Your task to perform on an android device: Empty the shopping cart on target.com. Image 0: 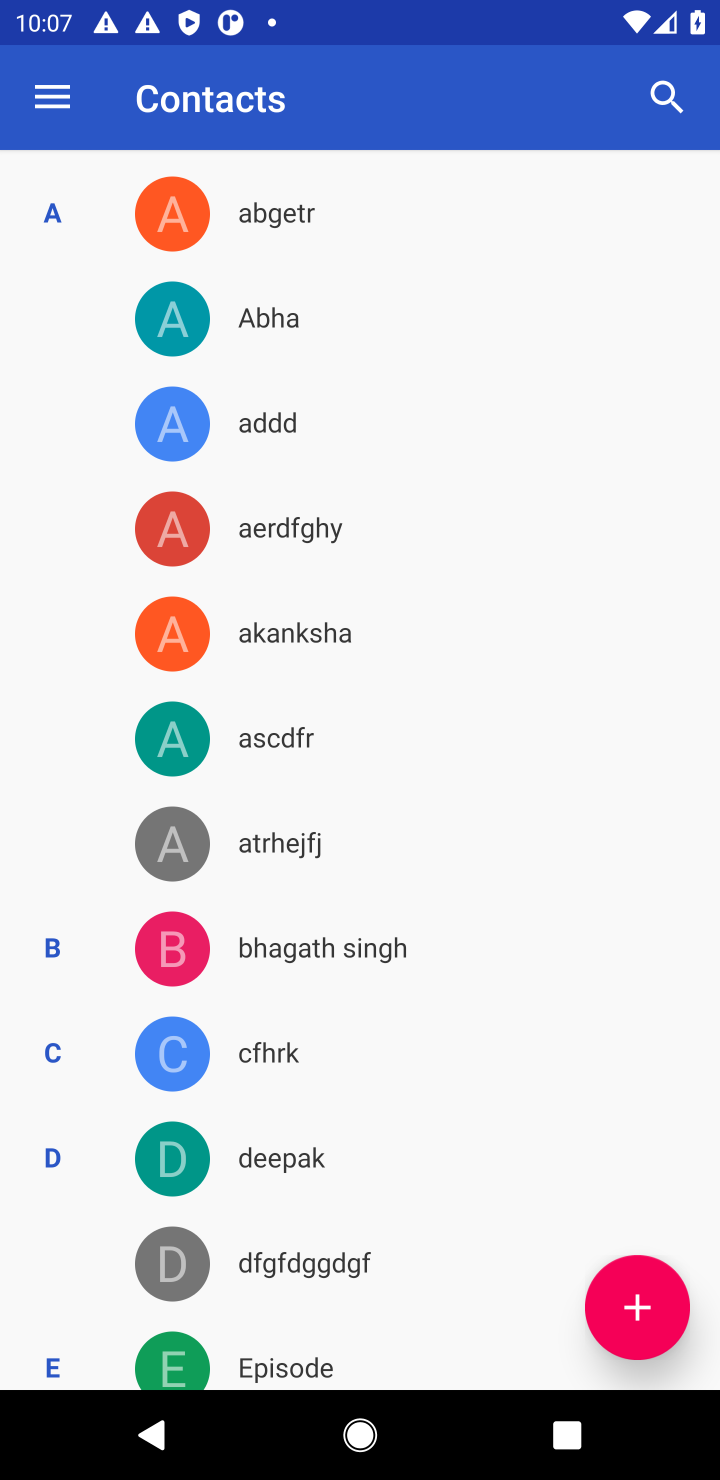
Step 0: press home button
Your task to perform on an android device: Empty the shopping cart on target.com. Image 1: 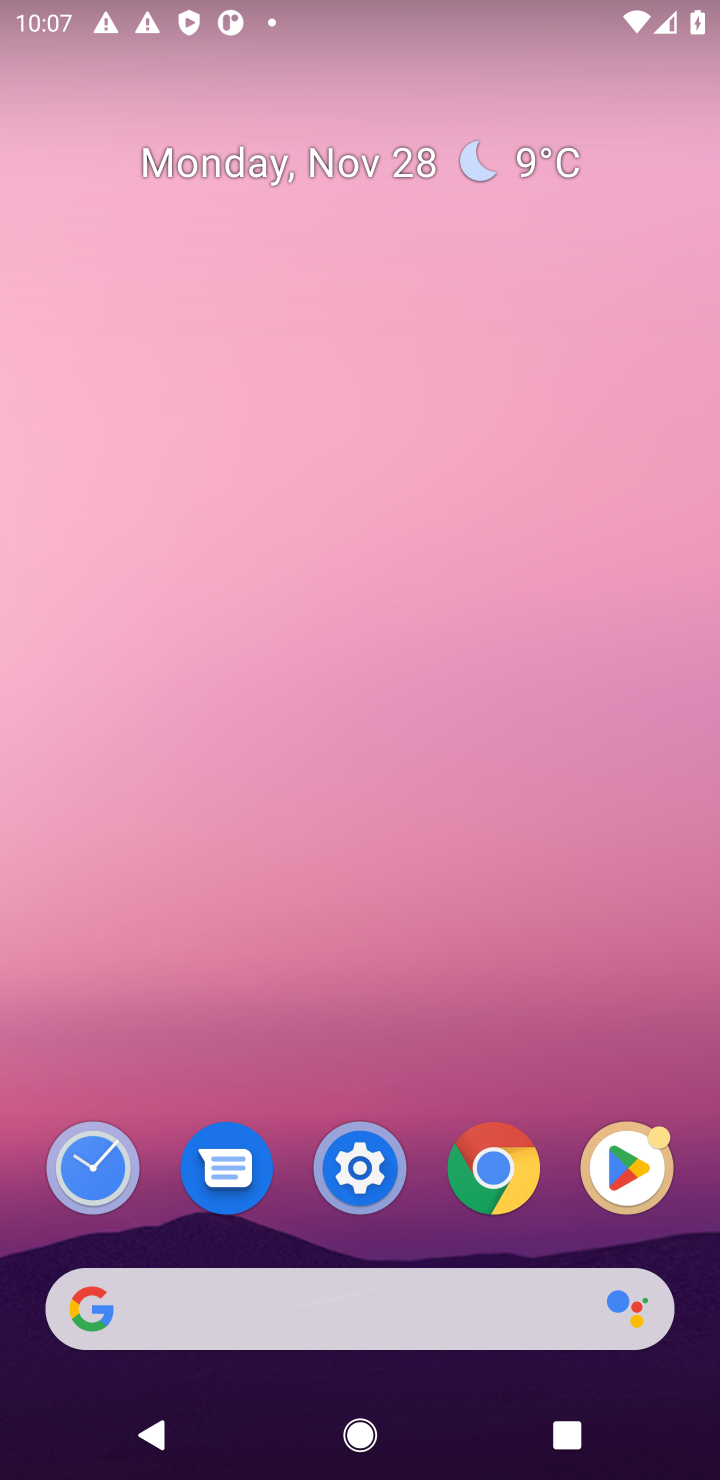
Step 1: click (346, 1302)
Your task to perform on an android device: Empty the shopping cart on target.com. Image 2: 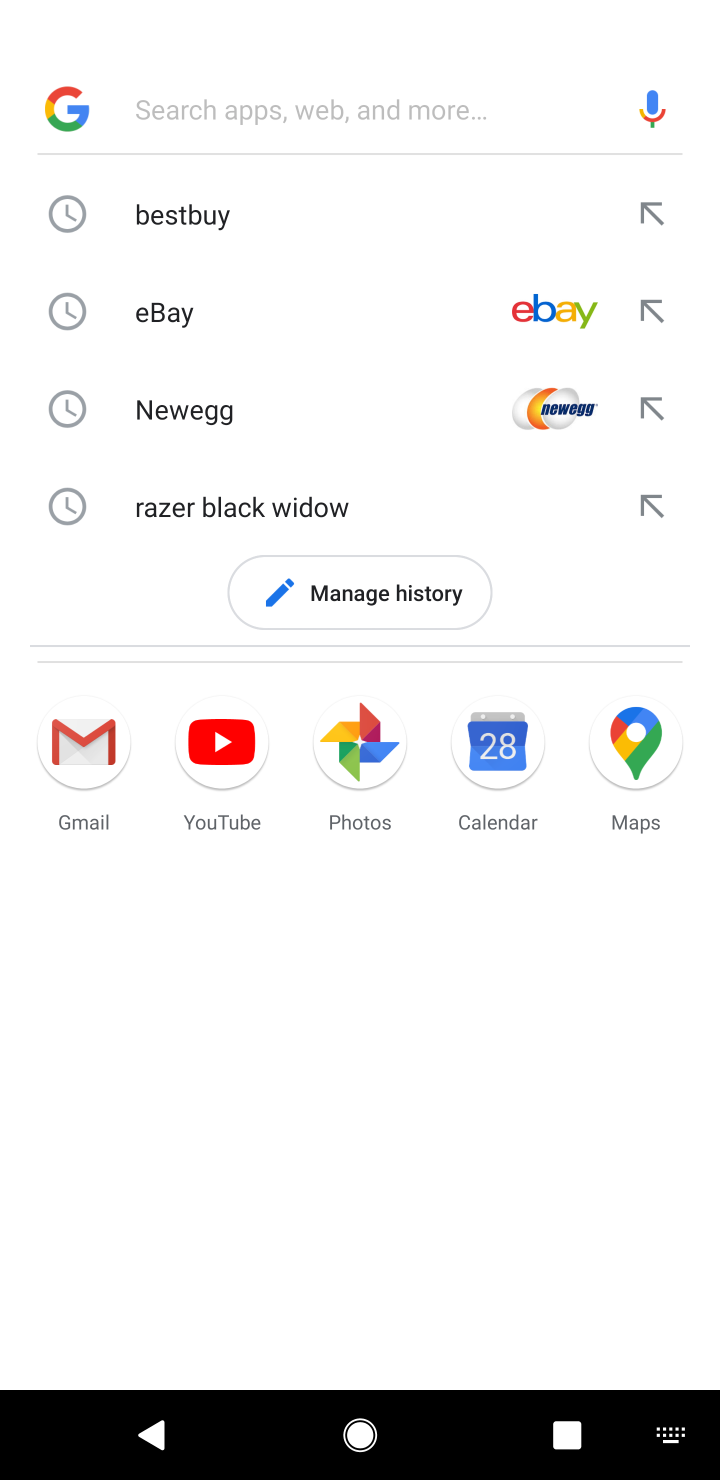
Step 2: type "target.com"
Your task to perform on an android device: Empty the shopping cart on target.com. Image 3: 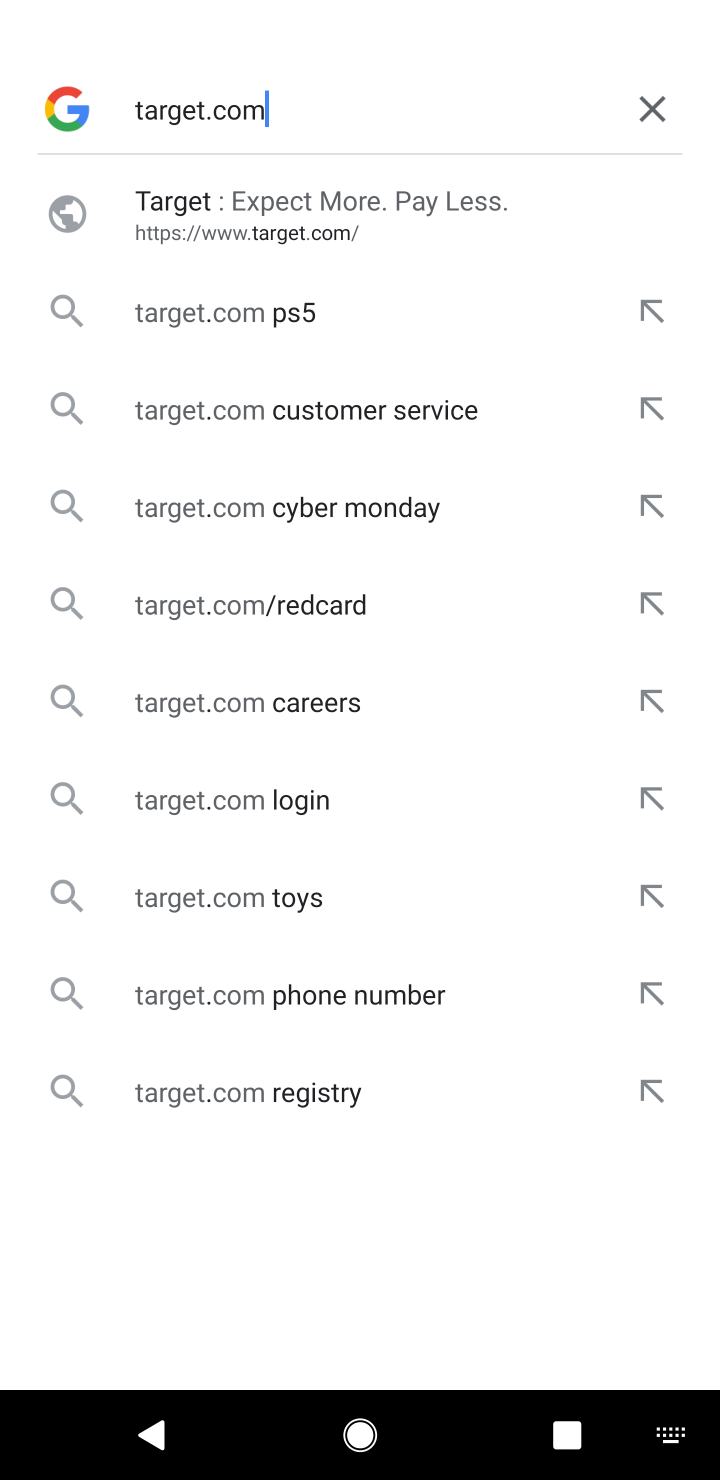
Step 3: click (213, 240)
Your task to perform on an android device: Empty the shopping cart on target.com. Image 4: 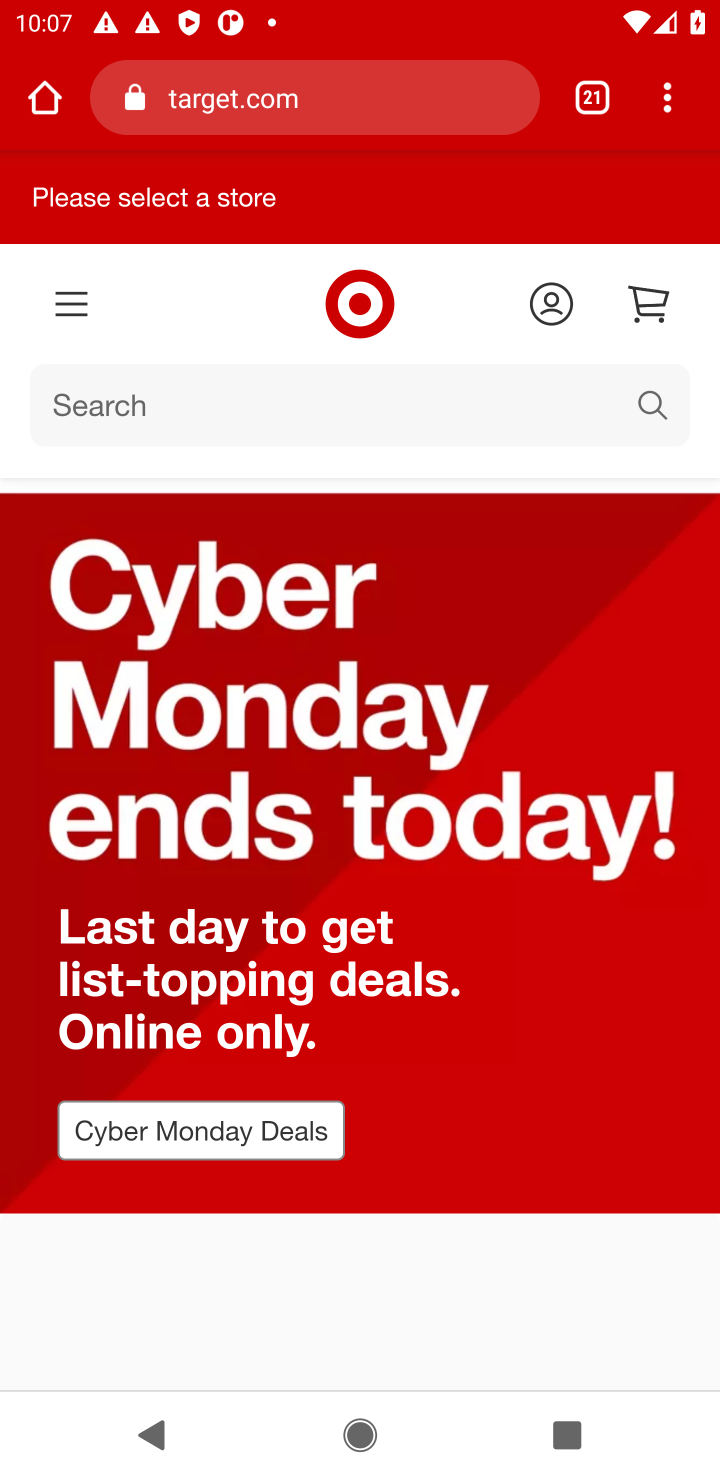
Step 4: click (155, 398)
Your task to perform on an android device: Empty the shopping cart on target.com. Image 5: 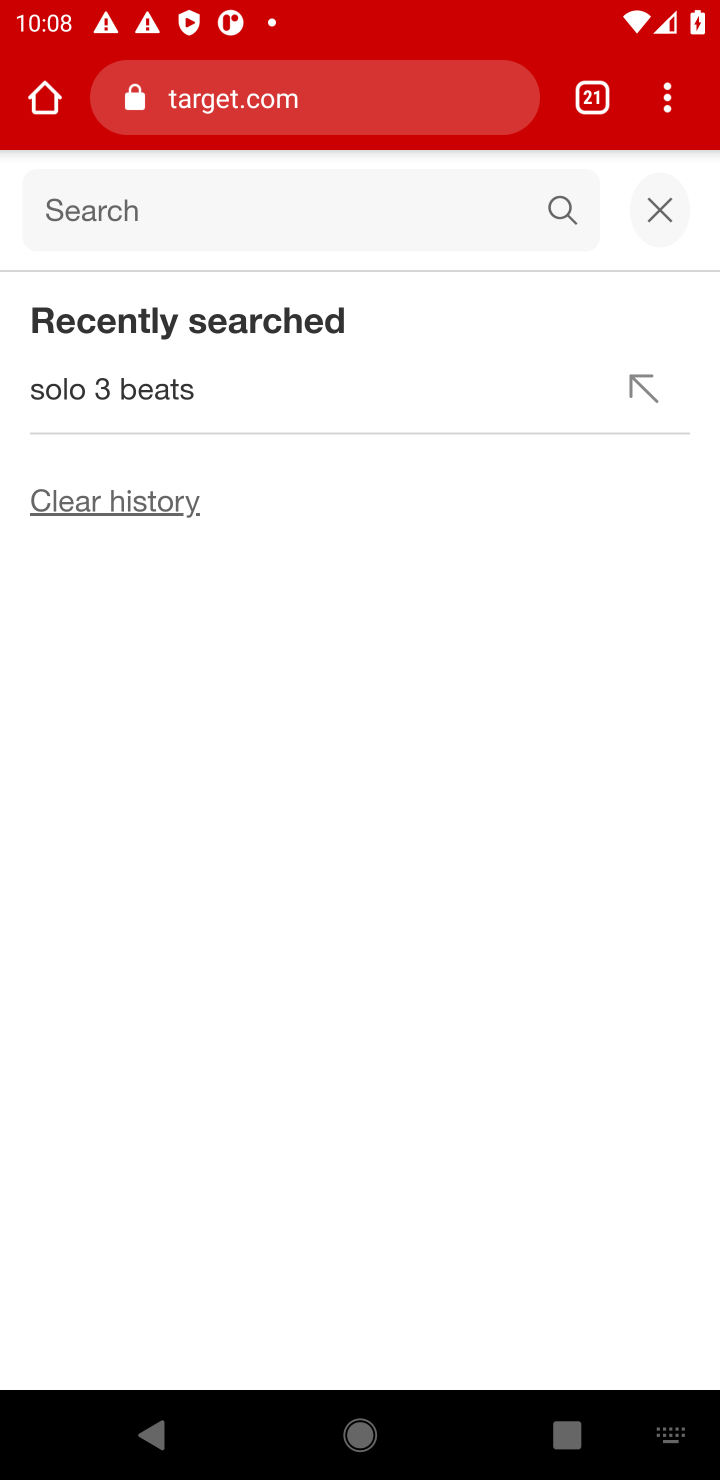
Step 5: click (680, 217)
Your task to perform on an android device: Empty the shopping cart on target.com. Image 6: 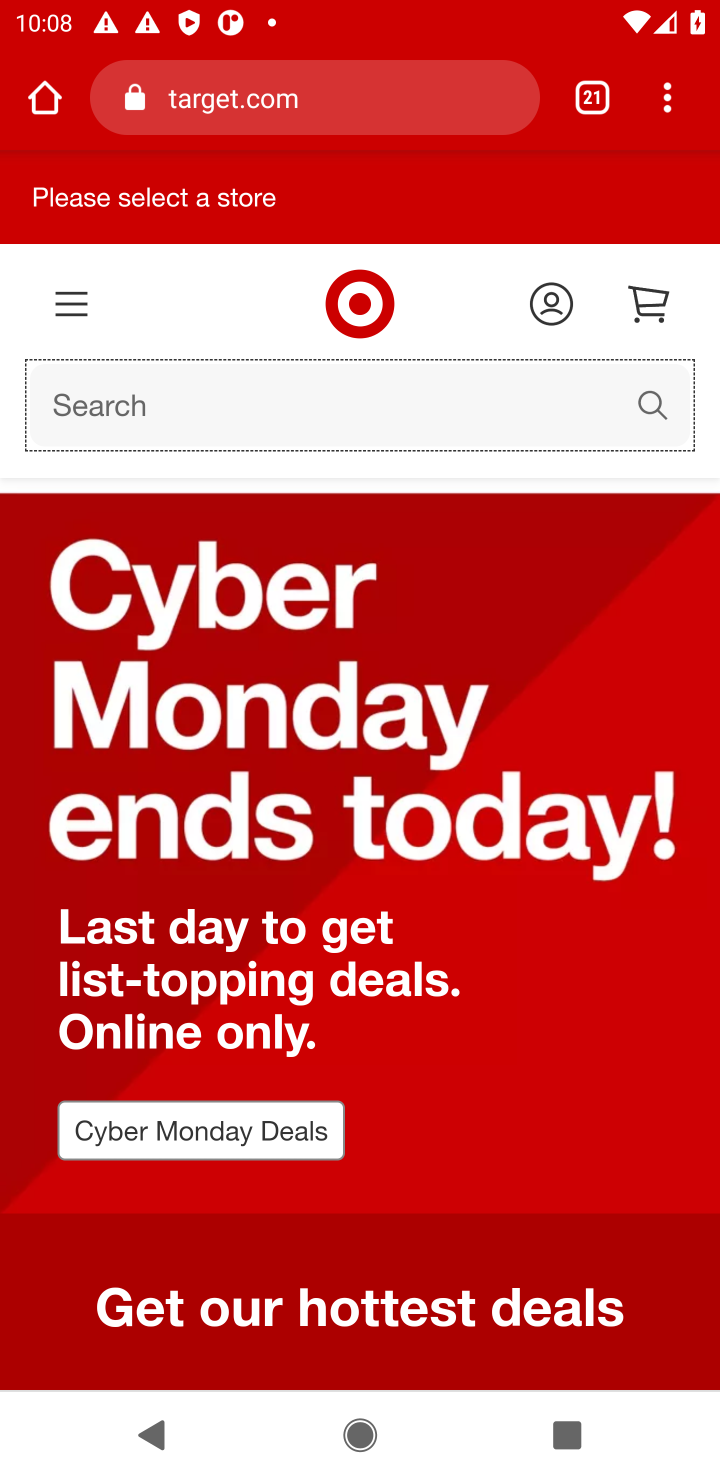
Step 6: click (643, 271)
Your task to perform on an android device: Empty the shopping cart on target.com. Image 7: 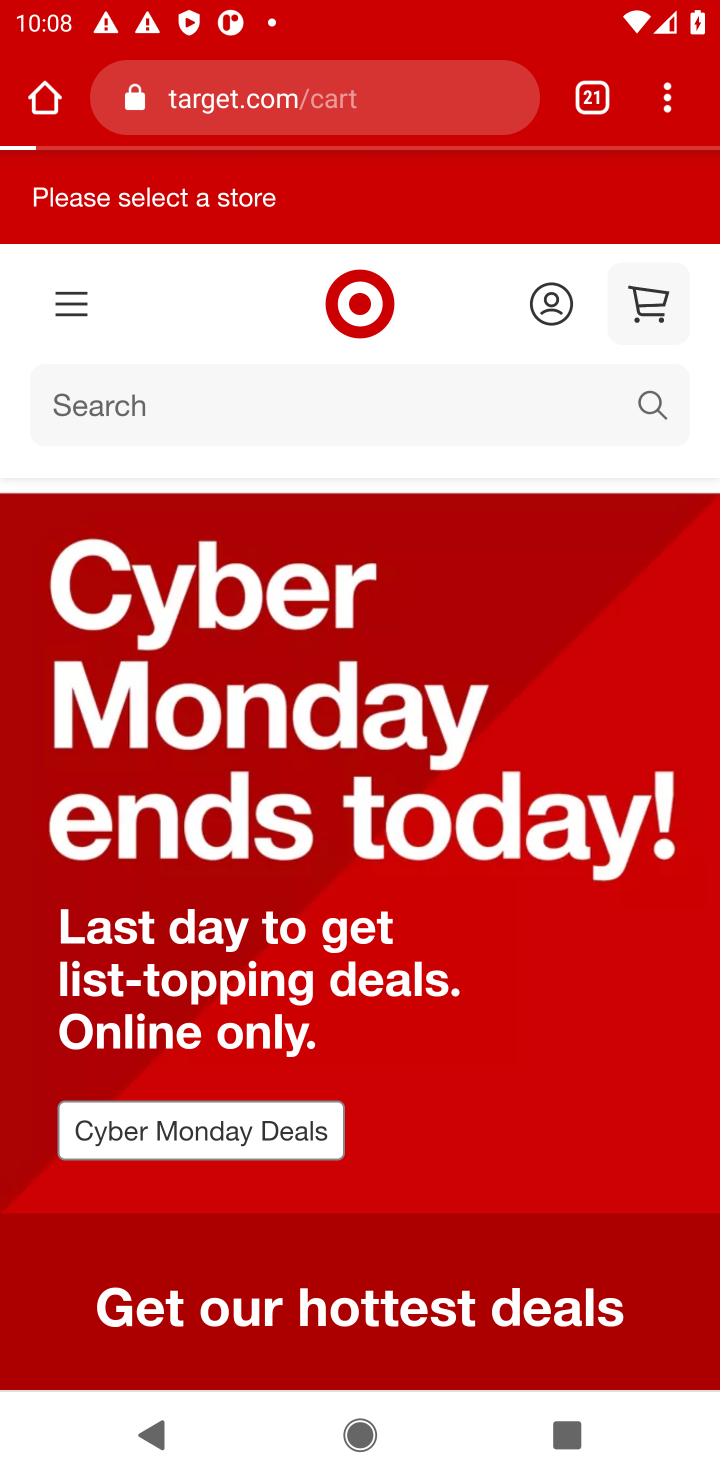
Step 7: task complete